Your task to perform on an android device: turn on airplane mode Image 0: 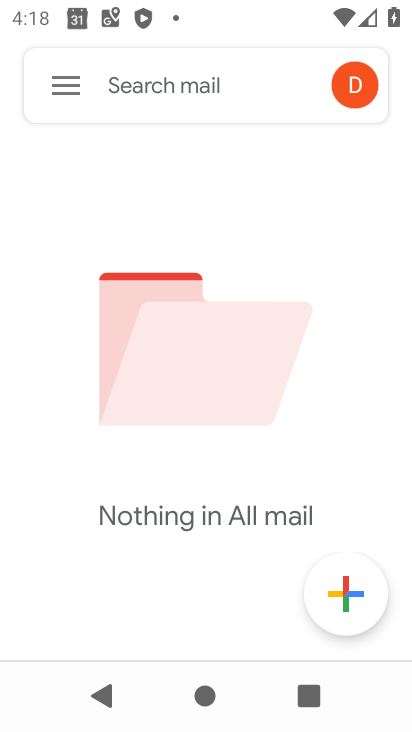
Step 0: press back button
Your task to perform on an android device: turn on airplane mode Image 1: 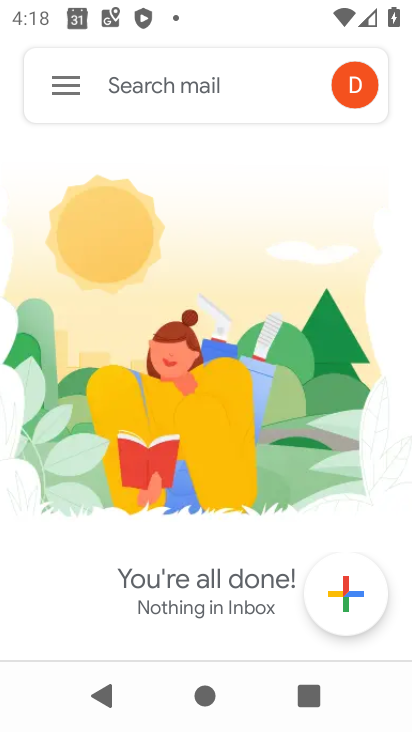
Step 1: press back button
Your task to perform on an android device: turn on airplane mode Image 2: 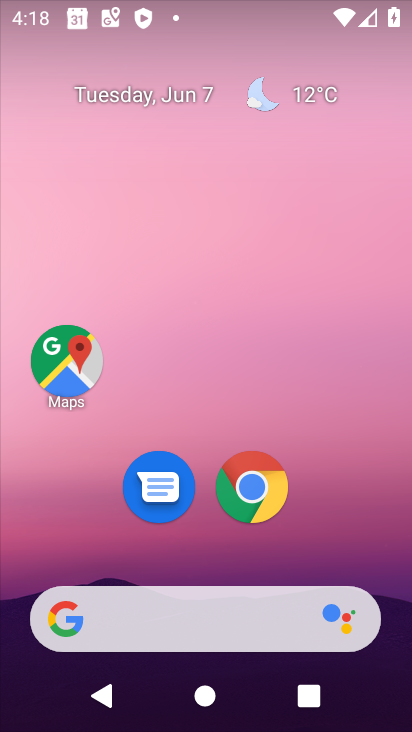
Step 2: drag from (347, 25) to (147, 566)
Your task to perform on an android device: turn on airplane mode Image 3: 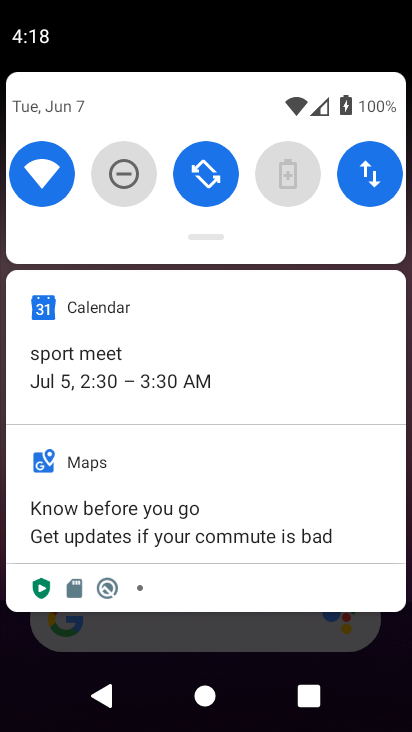
Step 3: drag from (210, 236) to (141, 684)
Your task to perform on an android device: turn on airplane mode Image 4: 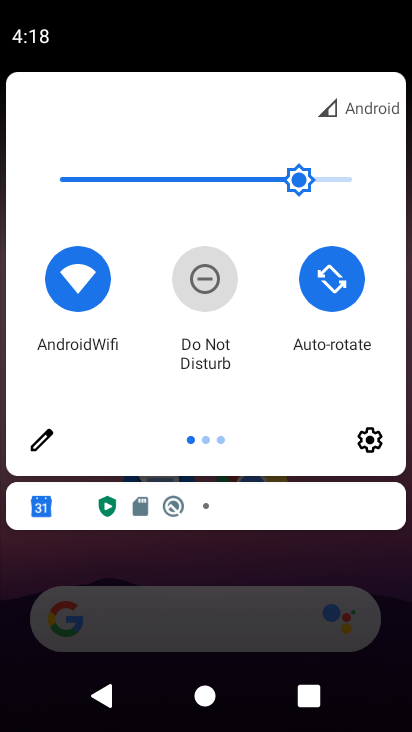
Step 4: drag from (352, 272) to (35, 264)
Your task to perform on an android device: turn on airplane mode Image 5: 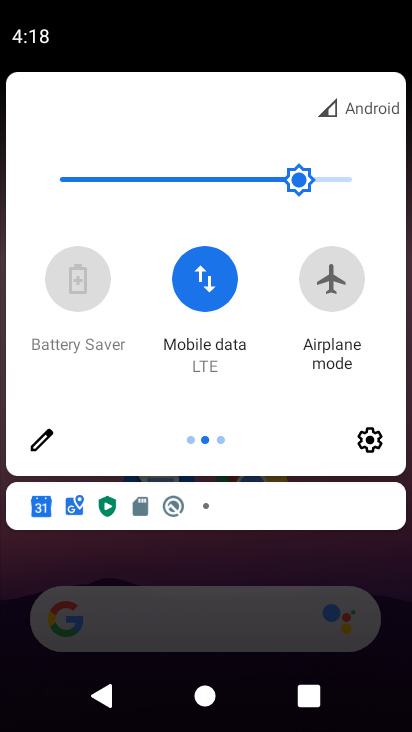
Step 5: click (338, 283)
Your task to perform on an android device: turn on airplane mode Image 6: 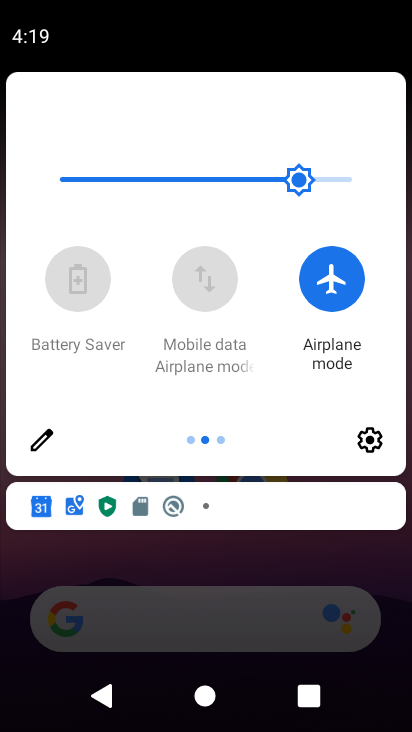
Step 6: task complete